Your task to perform on an android device: turn on wifi Image 0: 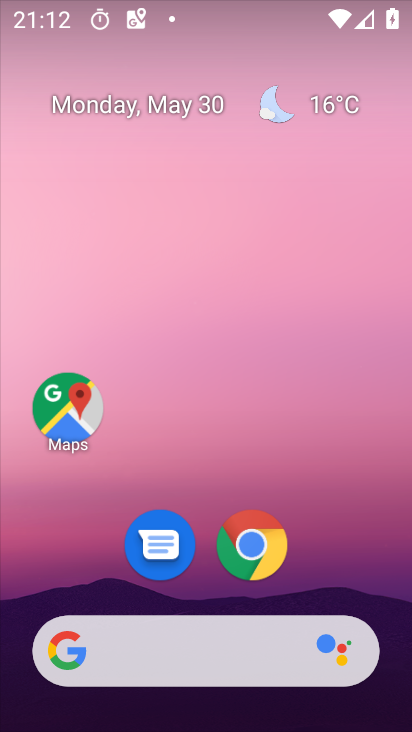
Step 0: drag from (323, 573) to (324, 70)
Your task to perform on an android device: turn on wifi Image 1: 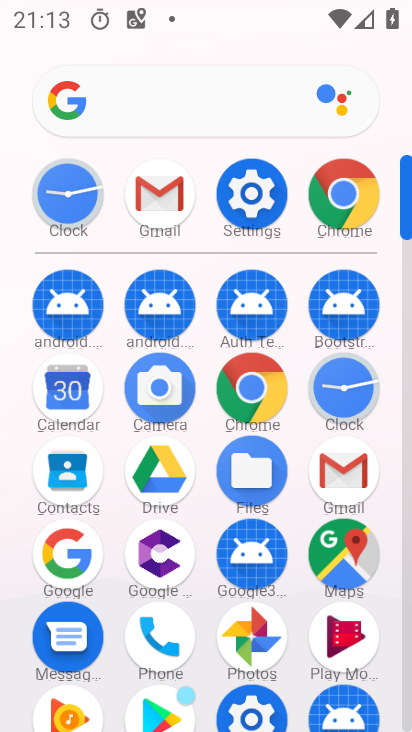
Step 1: click (259, 195)
Your task to perform on an android device: turn on wifi Image 2: 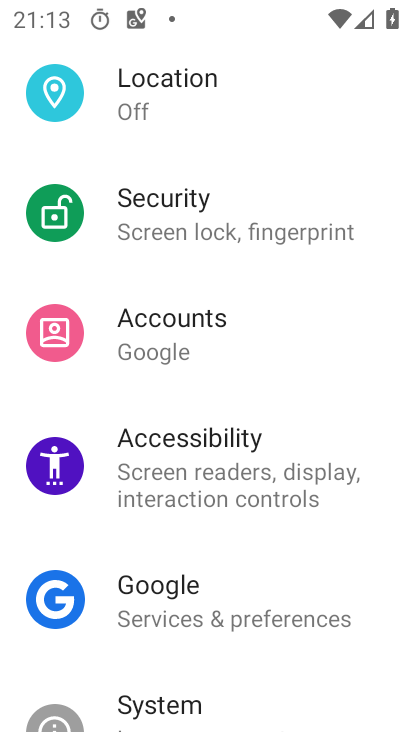
Step 2: drag from (297, 156) to (257, 680)
Your task to perform on an android device: turn on wifi Image 3: 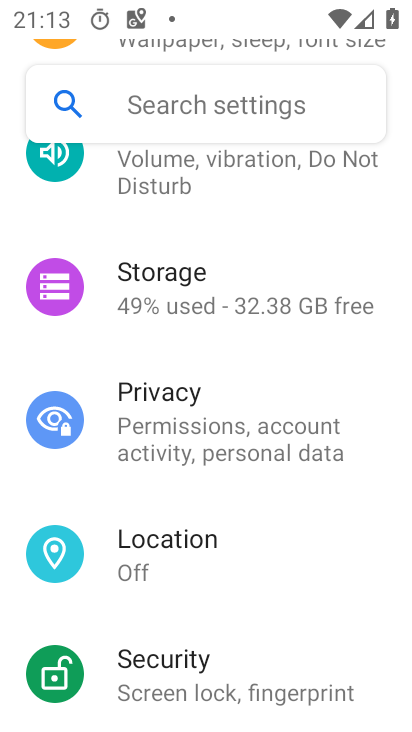
Step 3: drag from (291, 273) to (267, 662)
Your task to perform on an android device: turn on wifi Image 4: 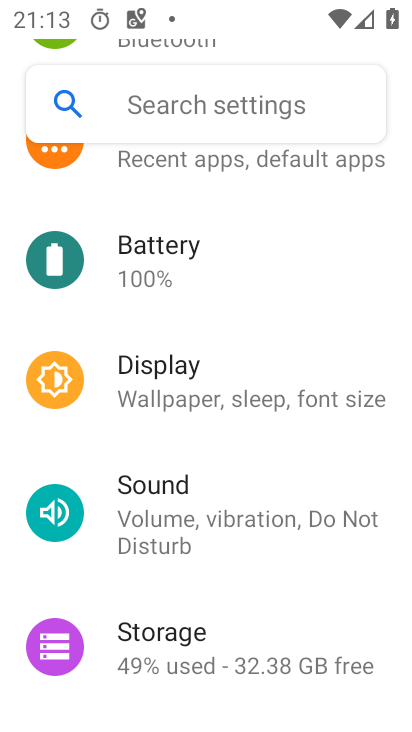
Step 4: drag from (293, 290) to (286, 697)
Your task to perform on an android device: turn on wifi Image 5: 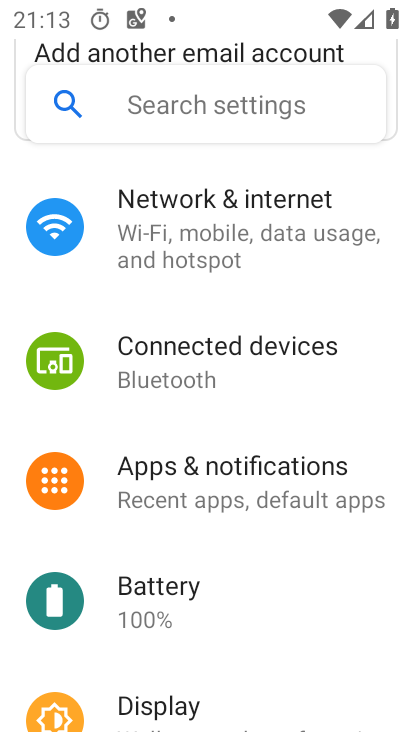
Step 5: click (266, 229)
Your task to perform on an android device: turn on wifi Image 6: 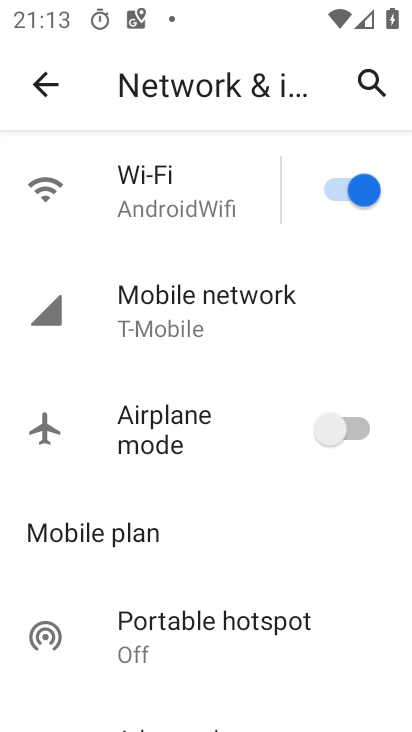
Step 6: task complete